Your task to perform on an android device: Go to privacy settings Image 0: 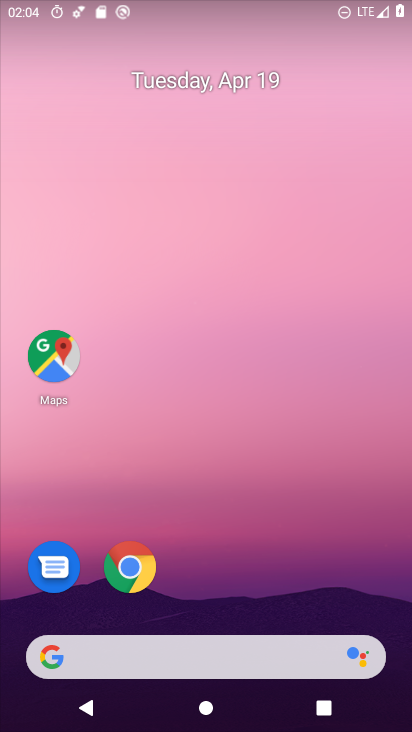
Step 0: drag from (274, 430) to (242, 97)
Your task to perform on an android device: Go to privacy settings Image 1: 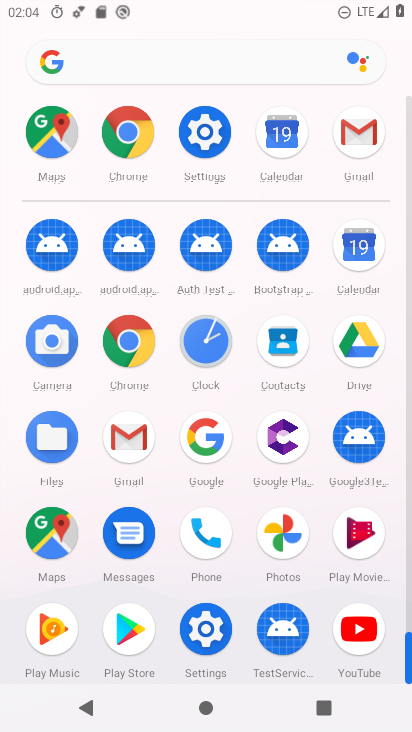
Step 1: click (219, 136)
Your task to perform on an android device: Go to privacy settings Image 2: 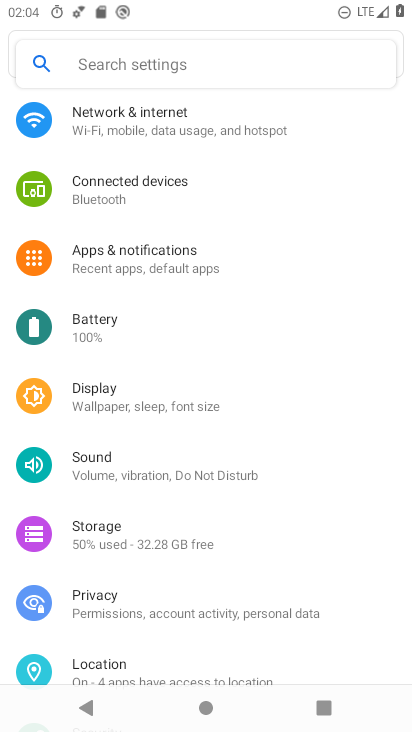
Step 2: drag from (260, 602) to (204, 268)
Your task to perform on an android device: Go to privacy settings Image 3: 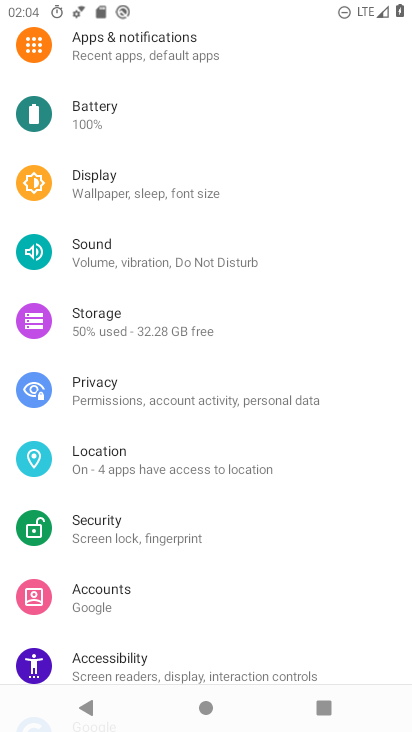
Step 3: click (165, 381)
Your task to perform on an android device: Go to privacy settings Image 4: 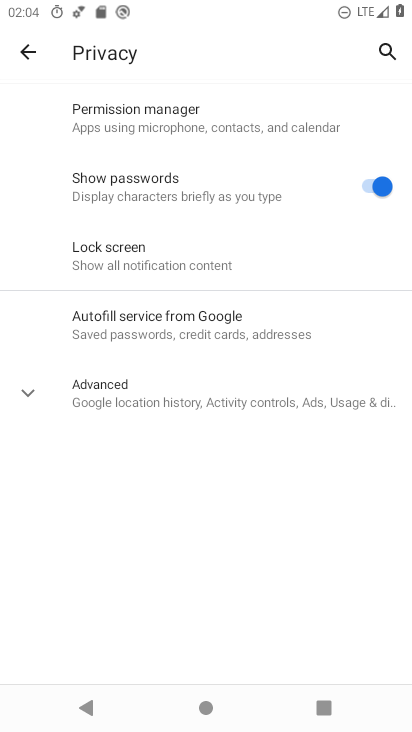
Step 4: task complete